Your task to perform on an android device: turn on airplane mode Image 0: 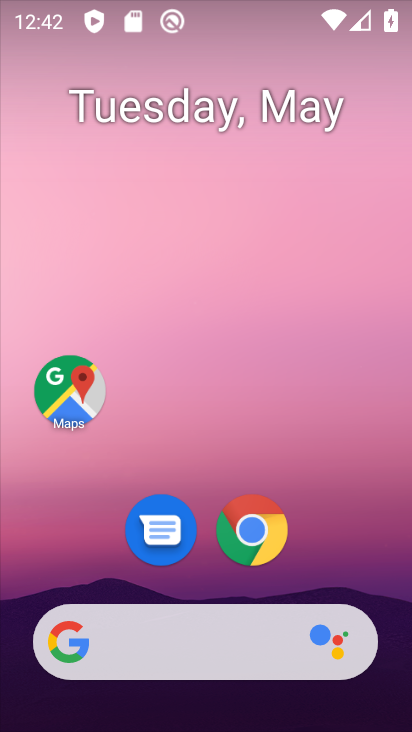
Step 0: drag from (211, 585) to (144, 136)
Your task to perform on an android device: turn on airplane mode Image 1: 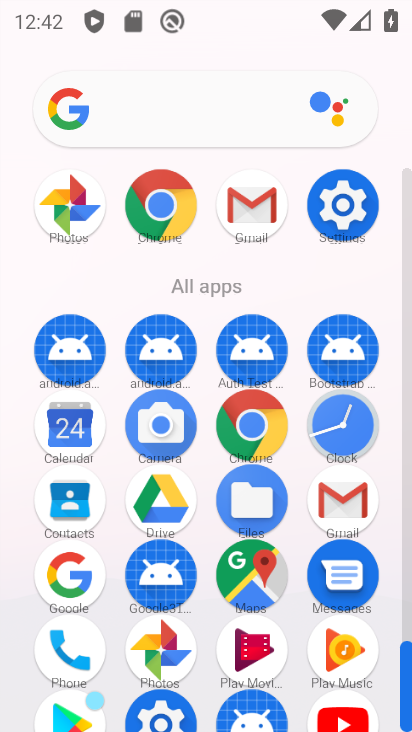
Step 1: click (341, 207)
Your task to perform on an android device: turn on airplane mode Image 2: 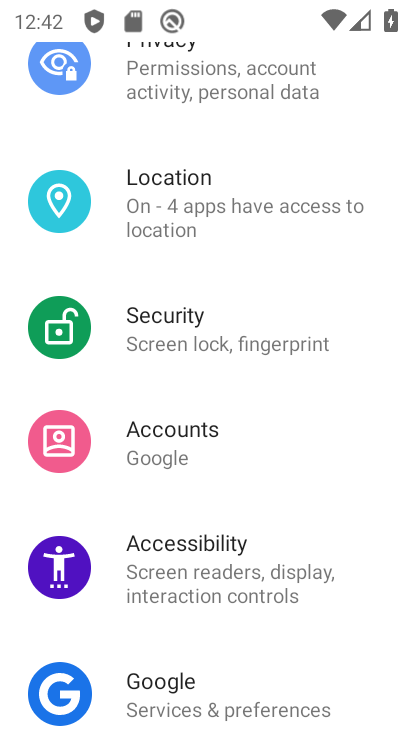
Step 2: drag from (245, 198) to (308, 488)
Your task to perform on an android device: turn on airplane mode Image 3: 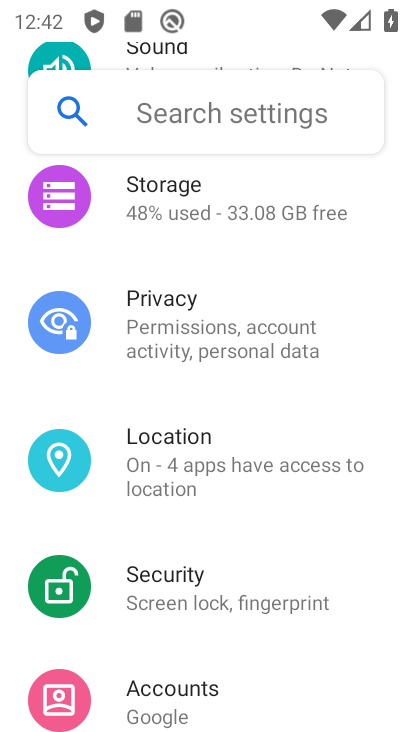
Step 3: drag from (232, 294) to (273, 602)
Your task to perform on an android device: turn on airplane mode Image 4: 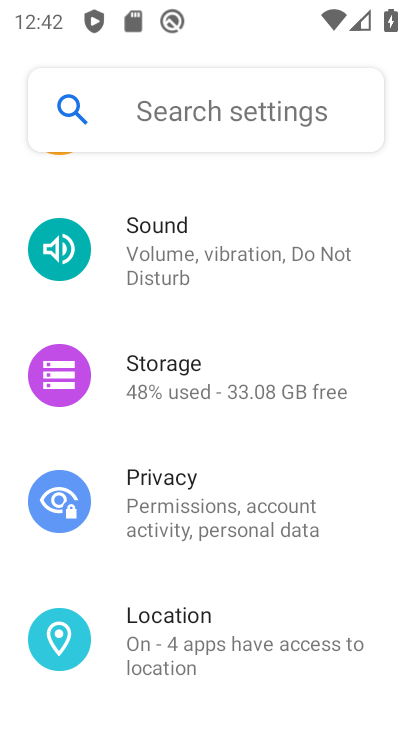
Step 4: drag from (207, 312) to (223, 633)
Your task to perform on an android device: turn on airplane mode Image 5: 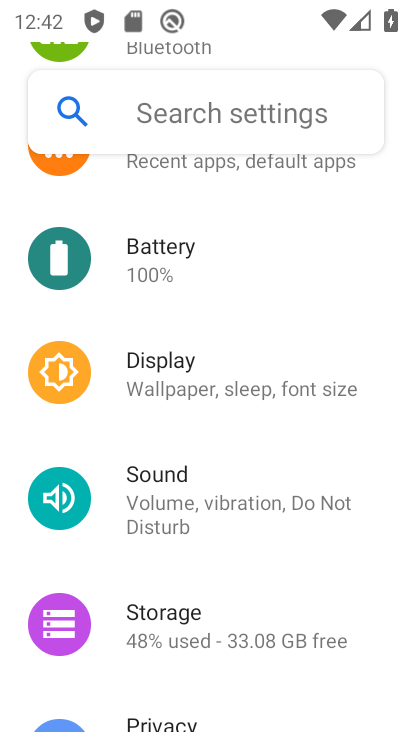
Step 5: drag from (280, 221) to (309, 566)
Your task to perform on an android device: turn on airplane mode Image 6: 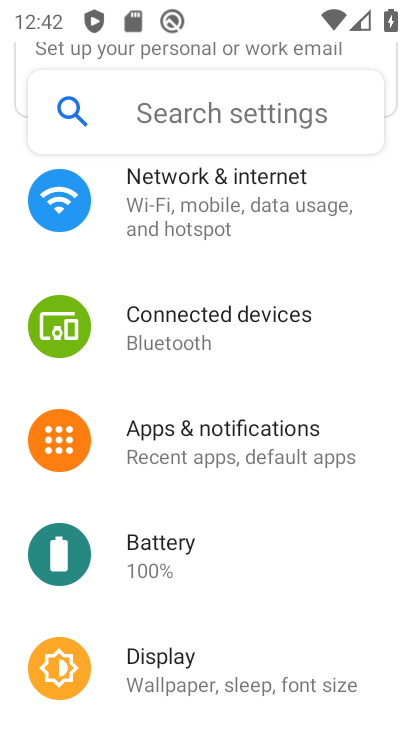
Step 6: click (244, 215)
Your task to perform on an android device: turn on airplane mode Image 7: 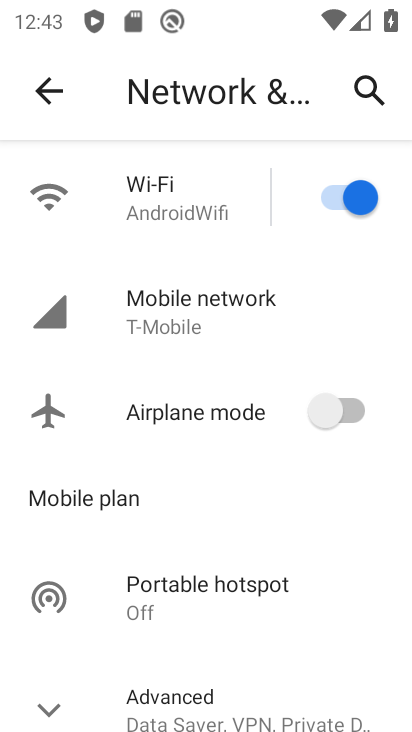
Step 7: click (354, 410)
Your task to perform on an android device: turn on airplane mode Image 8: 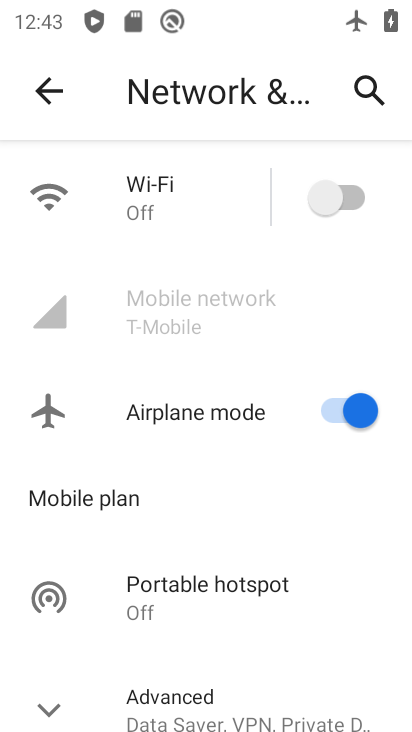
Step 8: task complete